Your task to perform on an android device: Open Chrome and go to settings Image 0: 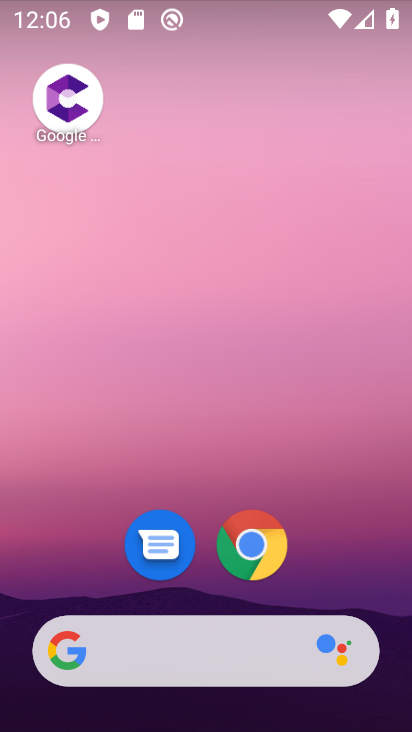
Step 0: click (247, 549)
Your task to perform on an android device: Open Chrome and go to settings Image 1: 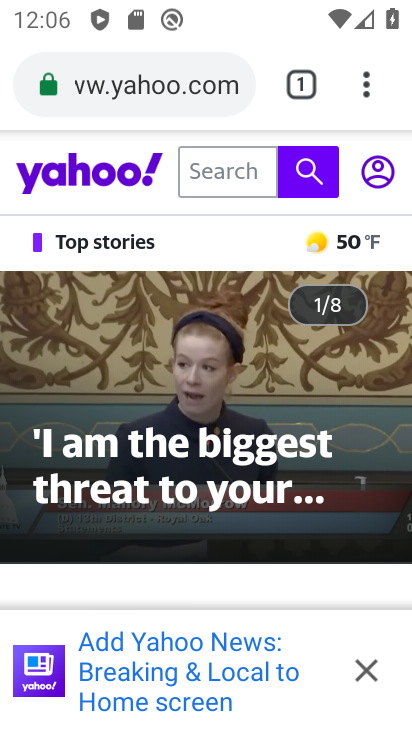
Step 1: click (362, 80)
Your task to perform on an android device: Open Chrome and go to settings Image 2: 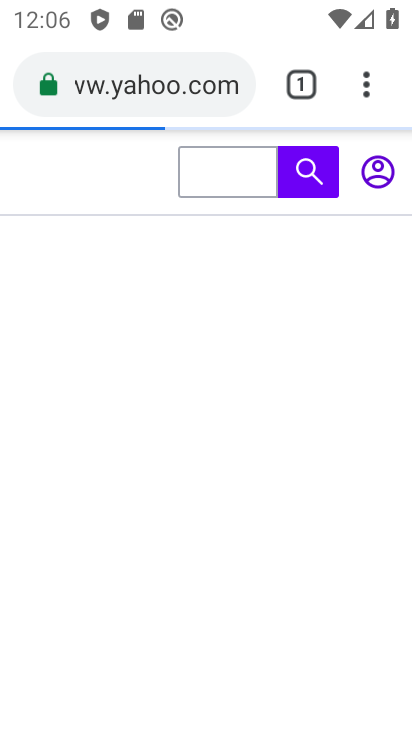
Step 2: task complete